Your task to perform on an android device: turn on showing notifications on the lock screen Image 0: 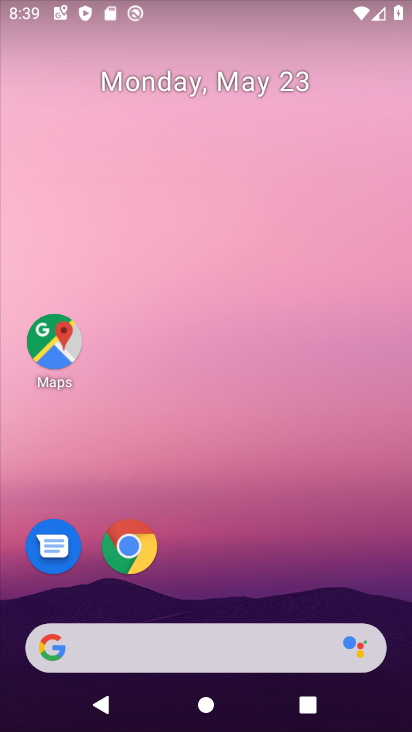
Step 0: drag from (403, 616) to (358, 106)
Your task to perform on an android device: turn on showing notifications on the lock screen Image 1: 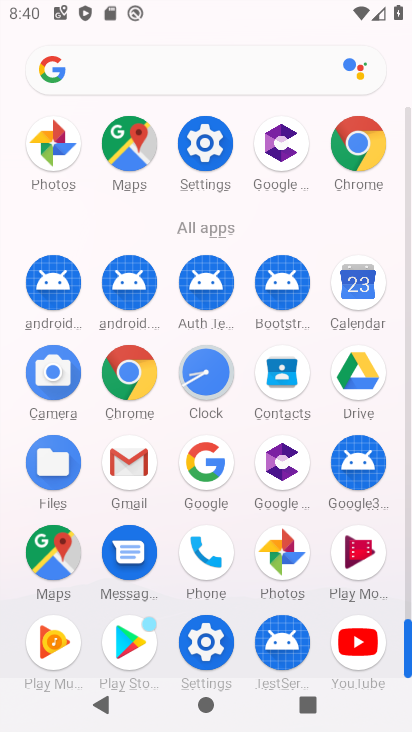
Step 1: click (204, 640)
Your task to perform on an android device: turn on showing notifications on the lock screen Image 2: 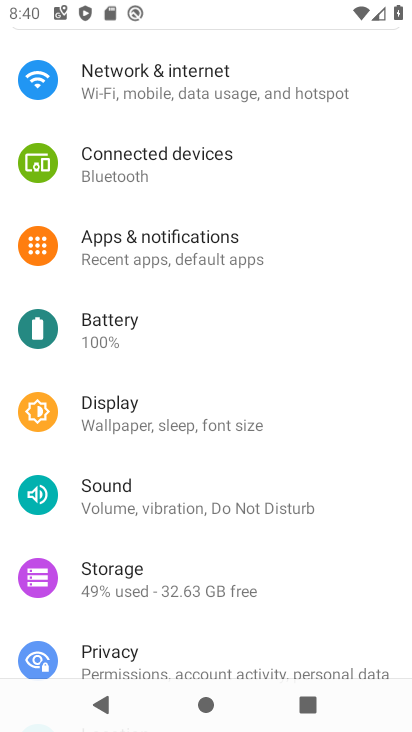
Step 2: click (166, 255)
Your task to perform on an android device: turn on showing notifications on the lock screen Image 3: 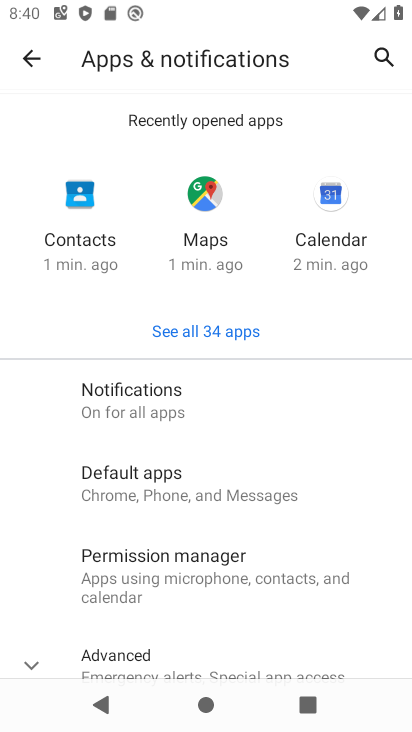
Step 3: click (138, 405)
Your task to perform on an android device: turn on showing notifications on the lock screen Image 4: 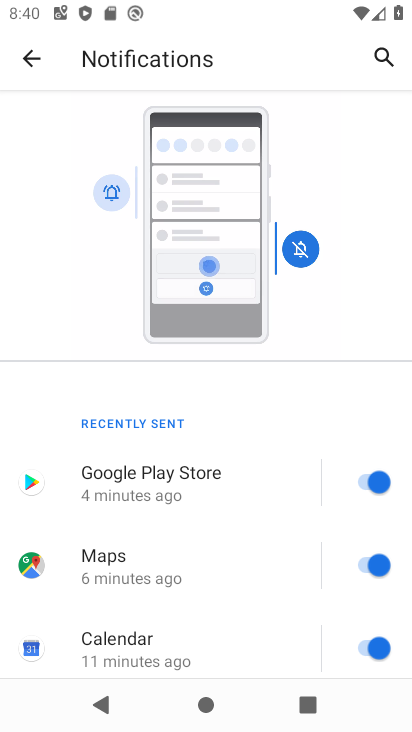
Step 4: drag from (225, 589) to (221, 272)
Your task to perform on an android device: turn on showing notifications on the lock screen Image 5: 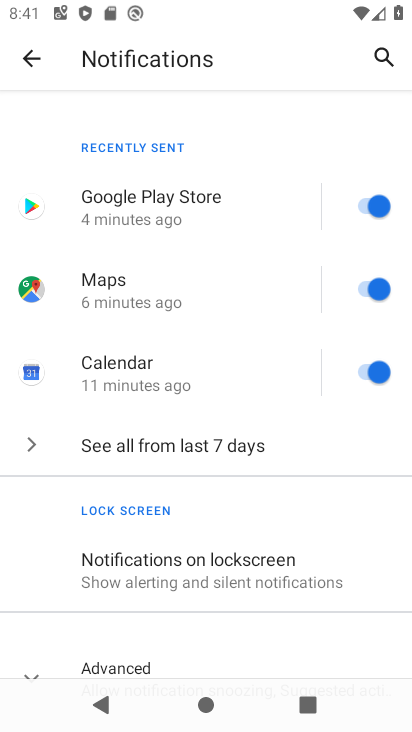
Step 5: click (163, 561)
Your task to perform on an android device: turn on showing notifications on the lock screen Image 6: 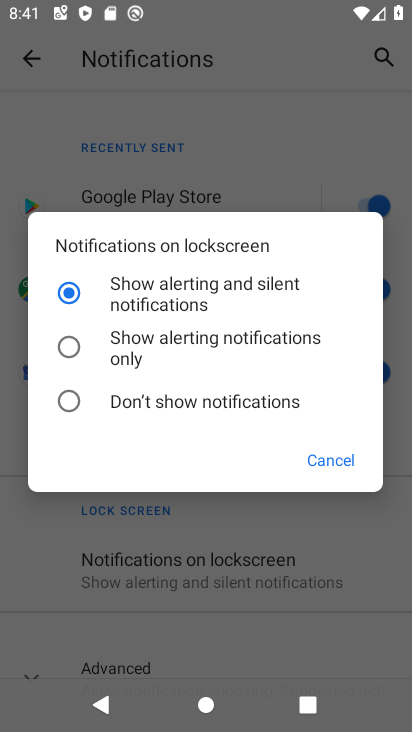
Step 6: task complete